Your task to perform on an android device: turn on showing notifications on the lock screen Image 0: 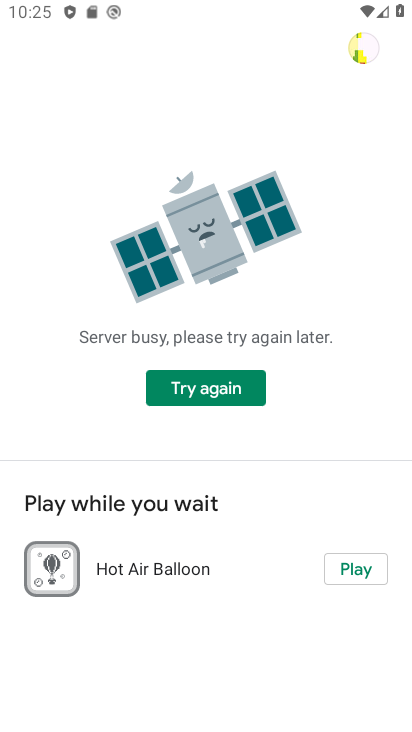
Step 0: press home button
Your task to perform on an android device: turn on showing notifications on the lock screen Image 1: 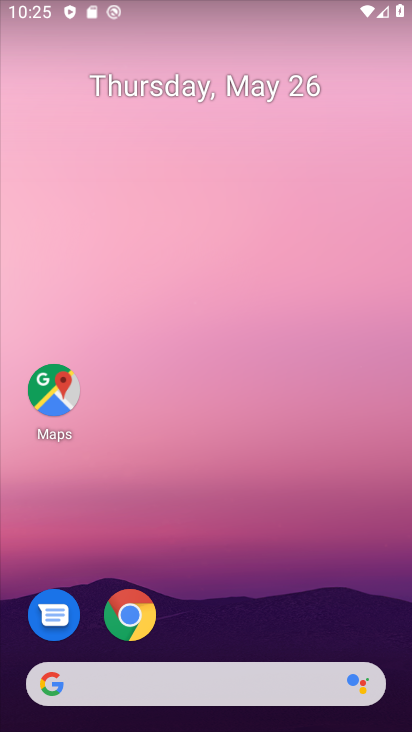
Step 1: drag from (328, 584) to (354, 240)
Your task to perform on an android device: turn on showing notifications on the lock screen Image 2: 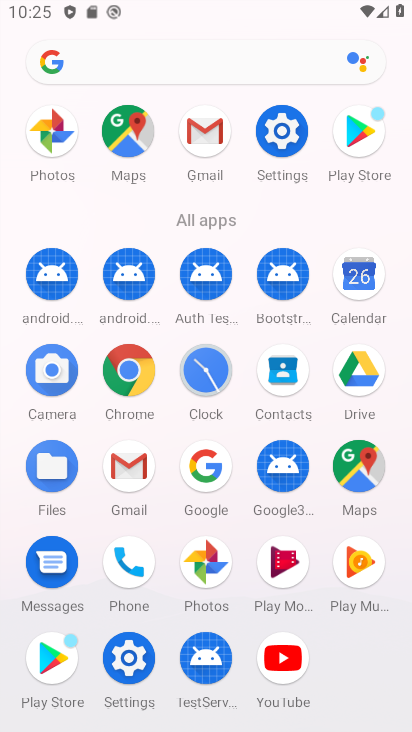
Step 2: click (289, 142)
Your task to perform on an android device: turn on showing notifications on the lock screen Image 3: 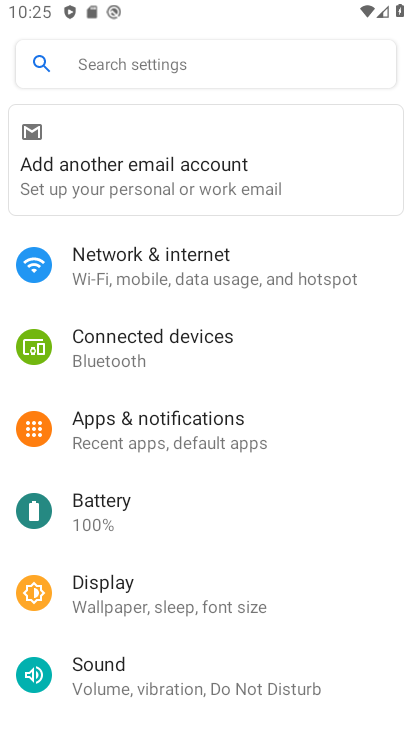
Step 3: click (227, 420)
Your task to perform on an android device: turn on showing notifications on the lock screen Image 4: 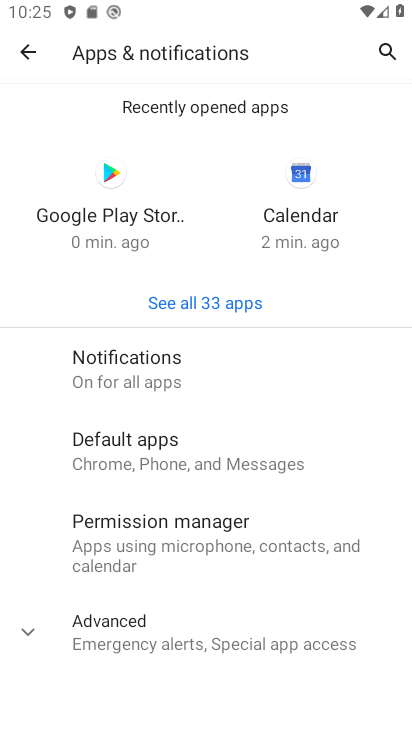
Step 4: click (190, 379)
Your task to perform on an android device: turn on showing notifications on the lock screen Image 5: 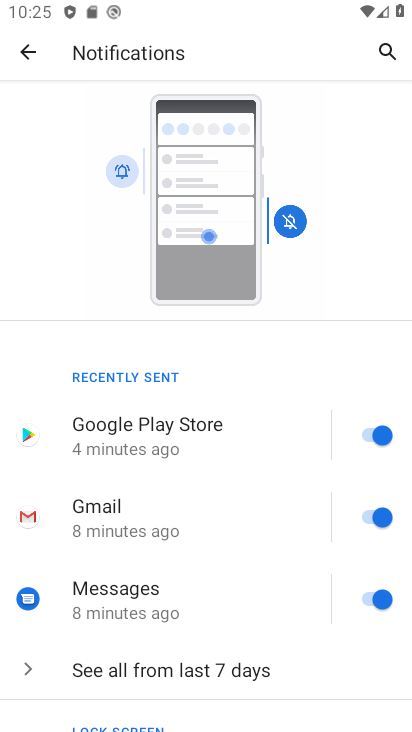
Step 5: drag from (258, 642) to (294, 337)
Your task to perform on an android device: turn on showing notifications on the lock screen Image 6: 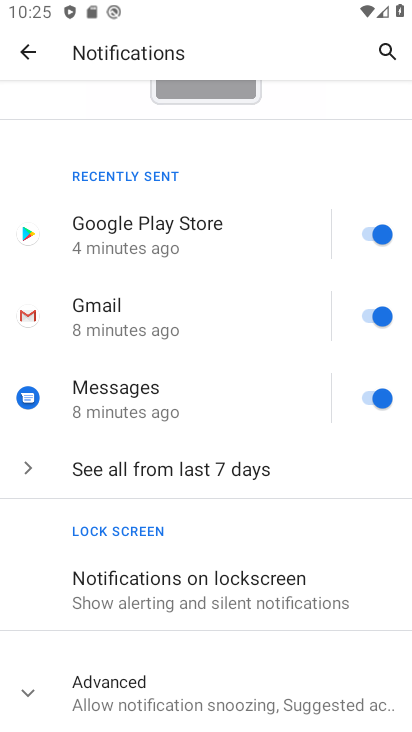
Step 6: click (291, 606)
Your task to perform on an android device: turn on showing notifications on the lock screen Image 7: 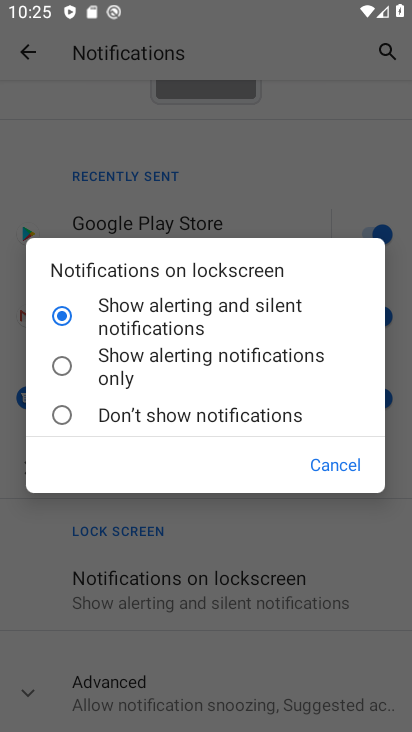
Step 7: task complete